Your task to perform on an android device: Open Yahoo.com Image 0: 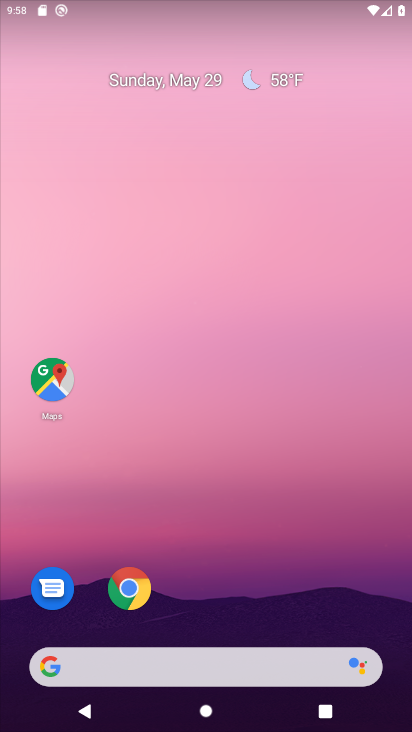
Step 0: drag from (261, 686) to (201, 149)
Your task to perform on an android device: Open Yahoo.com Image 1: 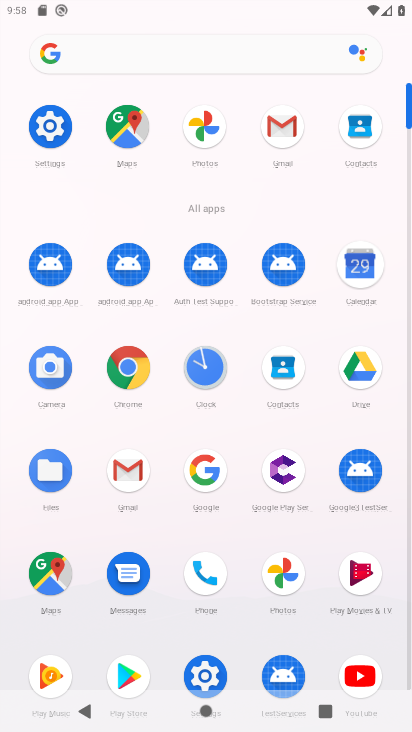
Step 1: click (123, 379)
Your task to perform on an android device: Open Yahoo.com Image 2: 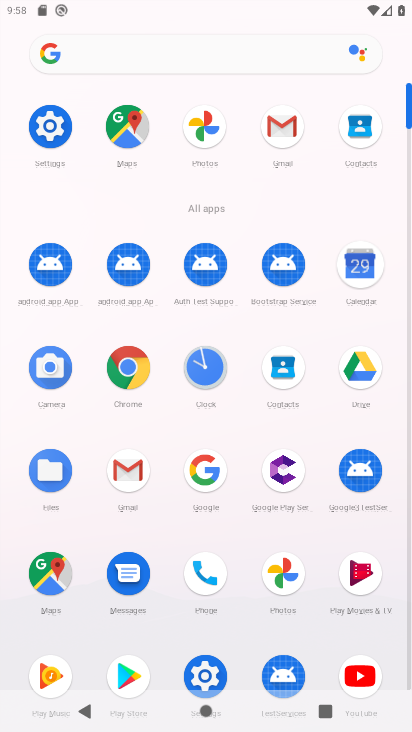
Step 2: click (123, 379)
Your task to perform on an android device: Open Yahoo.com Image 3: 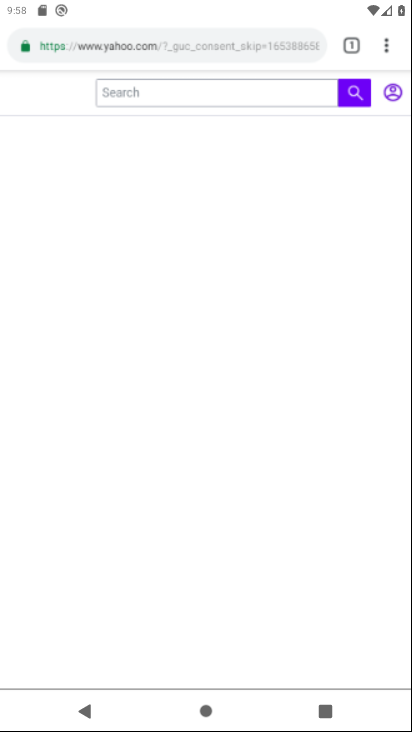
Step 3: click (129, 375)
Your task to perform on an android device: Open Yahoo.com Image 4: 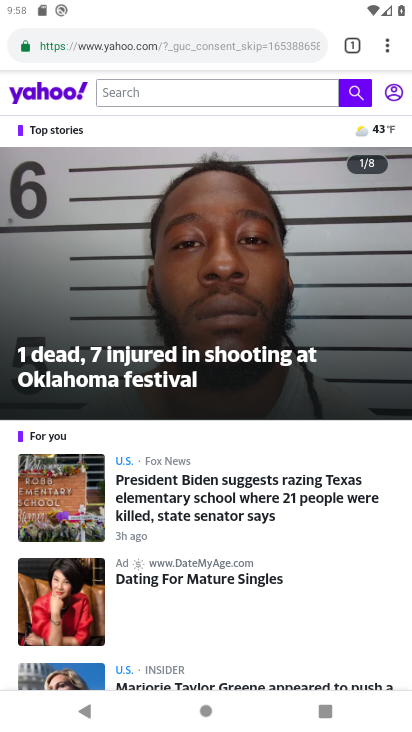
Step 4: task complete